Your task to perform on an android device: open app "WhatsApp Messenger" (install if not already installed) Image 0: 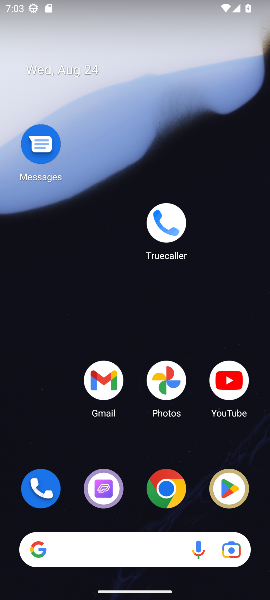
Step 0: drag from (142, 510) to (97, 54)
Your task to perform on an android device: open app "WhatsApp Messenger" (install if not already installed) Image 1: 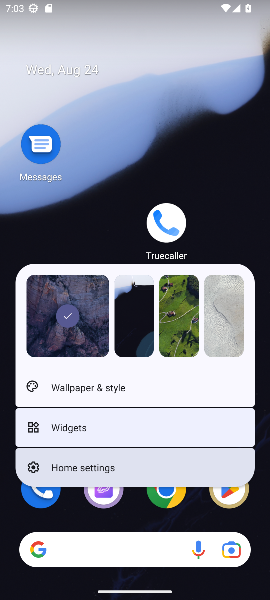
Step 1: click (112, 115)
Your task to perform on an android device: open app "WhatsApp Messenger" (install if not already installed) Image 2: 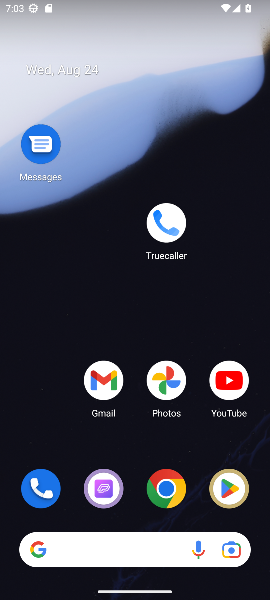
Step 2: click (134, 521)
Your task to perform on an android device: open app "WhatsApp Messenger" (install if not already installed) Image 3: 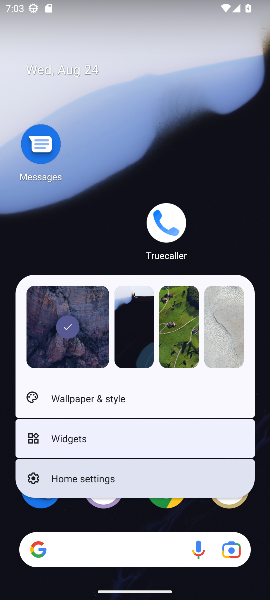
Step 3: click (190, 510)
Your task to perform on an android device: open app "WhatsApp Messenger" (install if not already installed) Image 4: 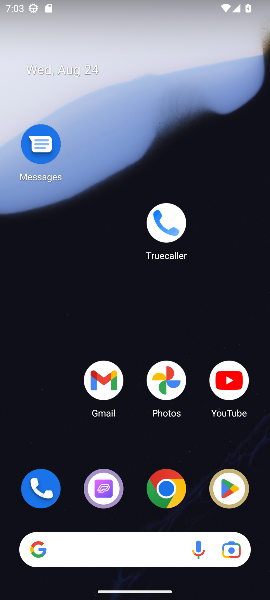
Step 4: click (227, 504)
Your task to perform on an android device: open app "WhatsApp Messenger" (install if not already installed) Image 5: 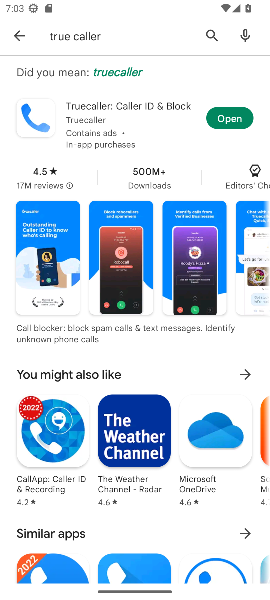
Step 5: click (211, 27)
Your task to perform on an android device: open app "WhatsApp Messenger" (install if not already installed) Image 6: 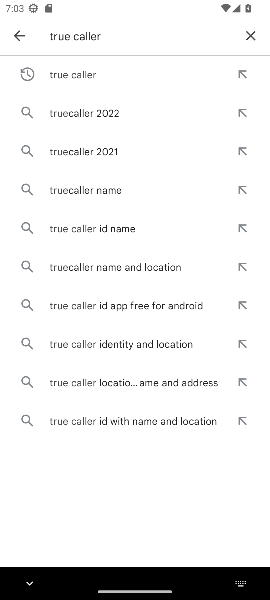
Step 6: click (244, 39)
Your task to perform on an android device: open app "WhatsApp Messenger" (install if not already installed) Image 7: 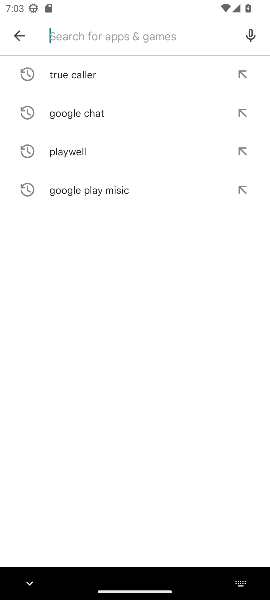
Step 7: type "whatsapp"
Your task to perform on an android device: open app "WhatsApp Messenger" (install if not already installed) Image 8: 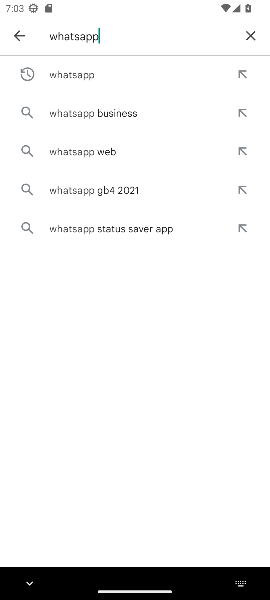
Step 8: click (144, 82)
Your task to perform on an android device: open app "WhatsApp Messenger" (install if not already installed) Image 9: 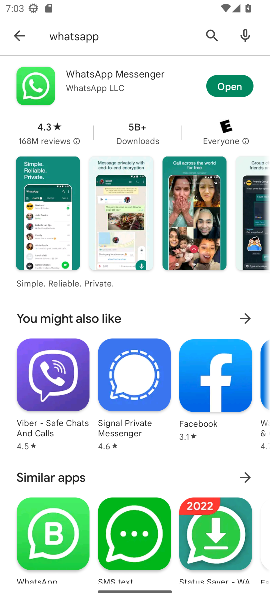
Step 9: click (217, 81)
Your task to perform on an android device: open app "WhatsApp Messenger" (install if not already installed) Image 10: 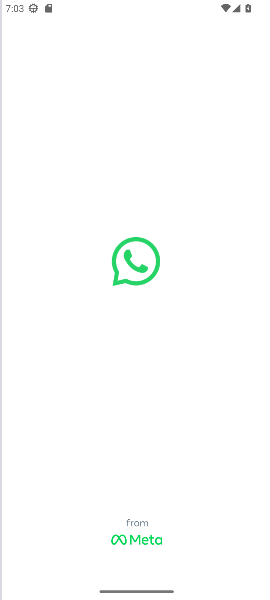
Step 10: task complete